Your task to perform on an android device: Look up the best rated bike seats on Target Image 0: 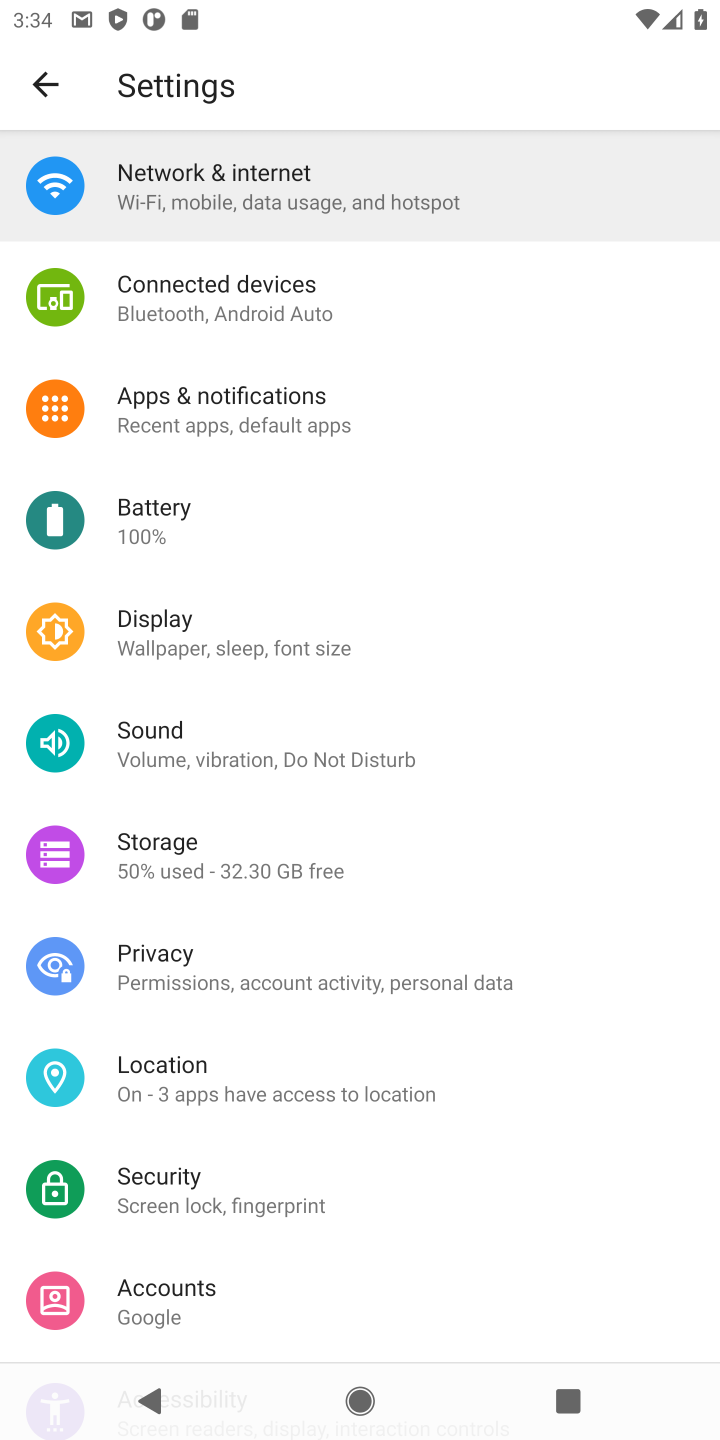
Step 0: press home button
Your task to perform on an android device: Look up the best rated bike seats on Target Image 1: 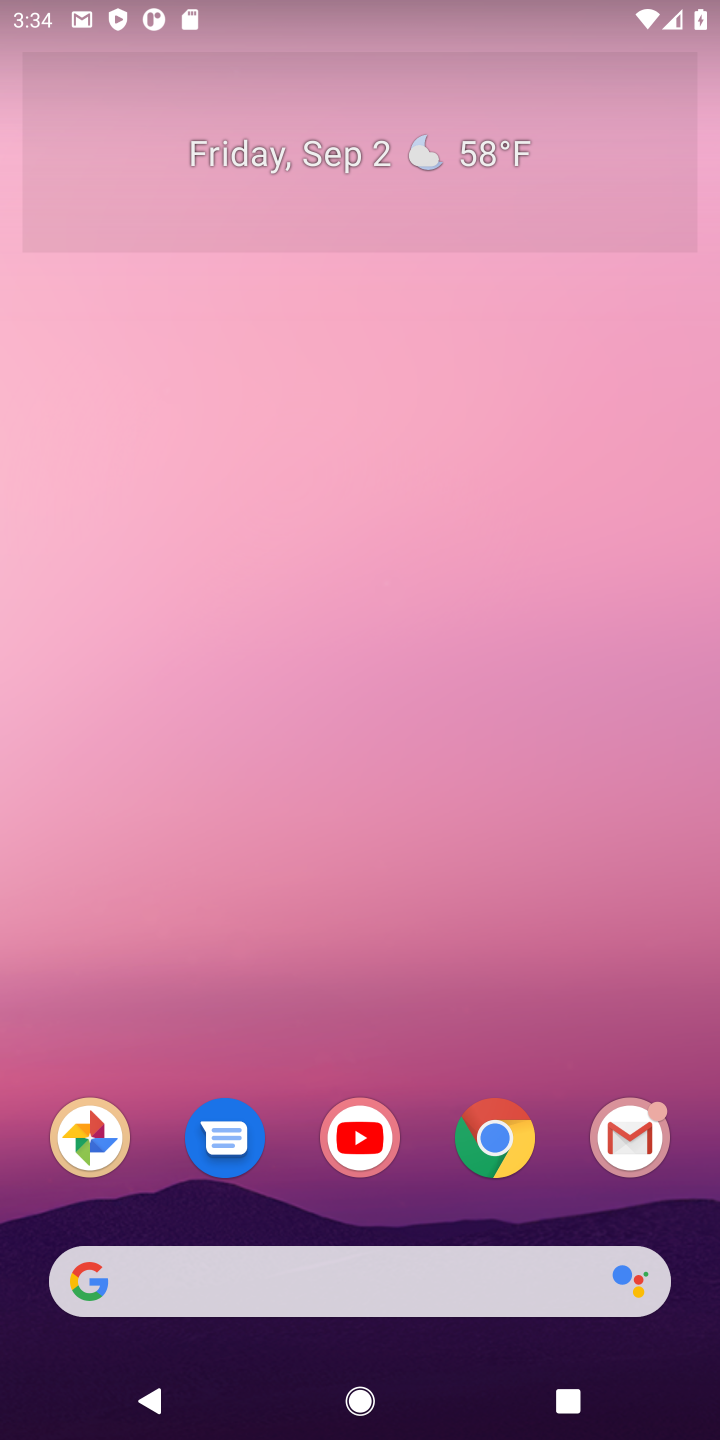
Step 1: click (477, 1140)
Your task to perform on an android device: Look up the best rated bike seats on Target Image 2: 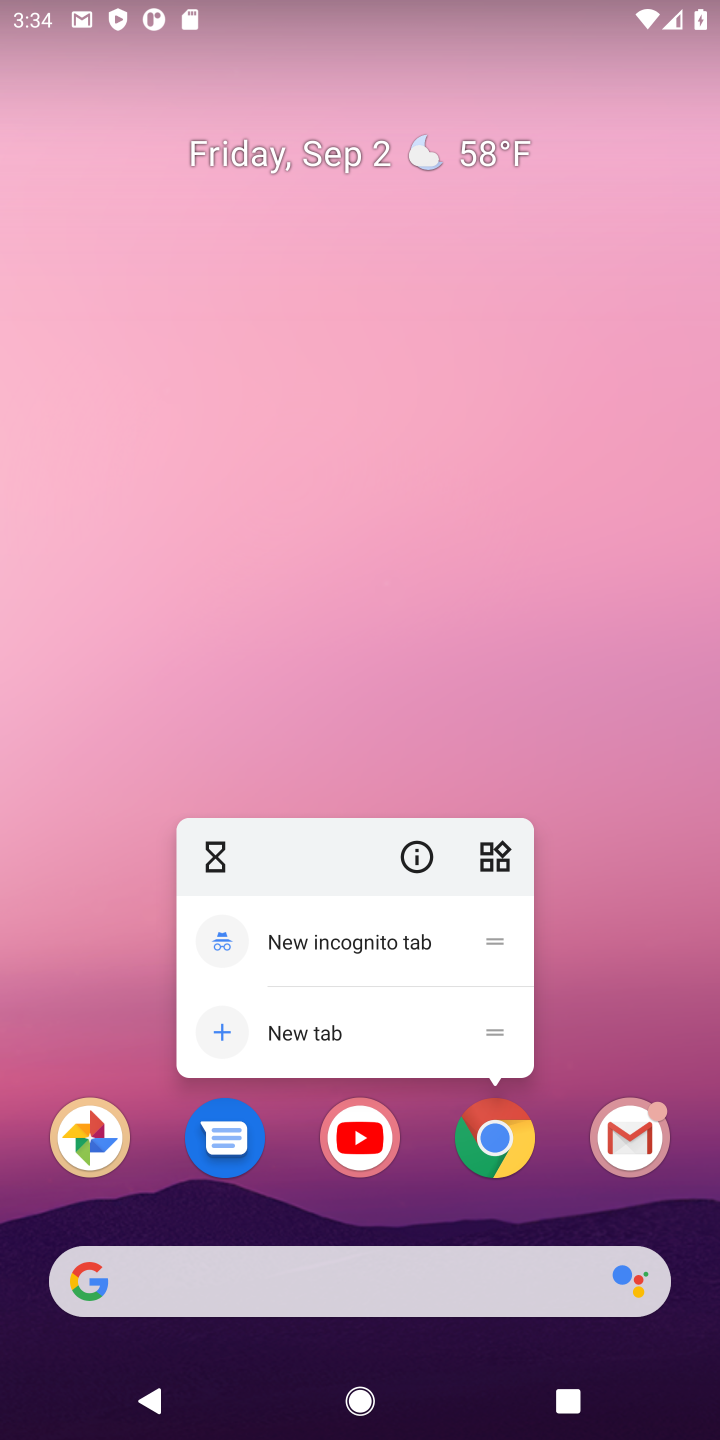
Step 2: click (502, 1148)
Your task to perform on an android device: Look up the best rated bike seats on Target Image 3: 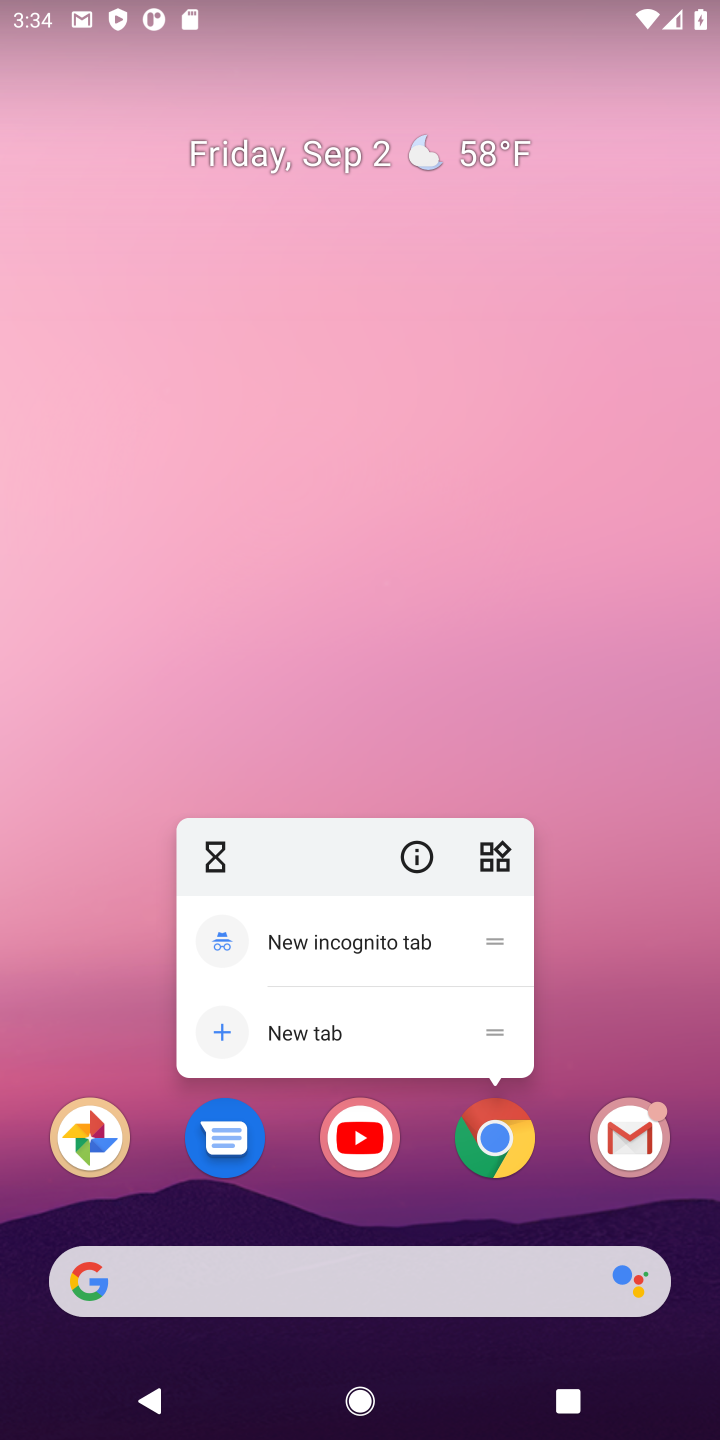
Step 3: click (502, 1148)
Your task to perform on an android device: Look up the best rated bike seats on Target Image 4: 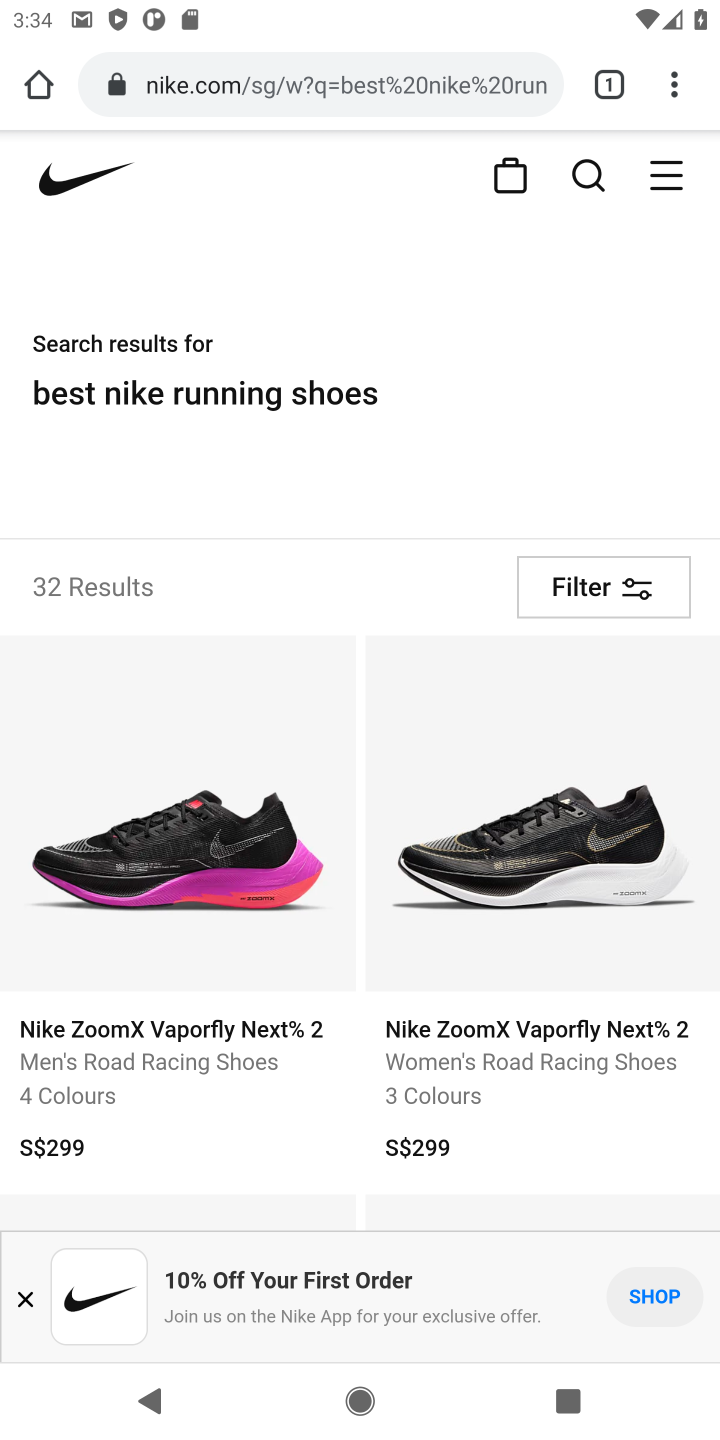
Step 4: click (428, 68)
Your task to perform on an android device: Look up the best rated bike seats on Target Image 5: 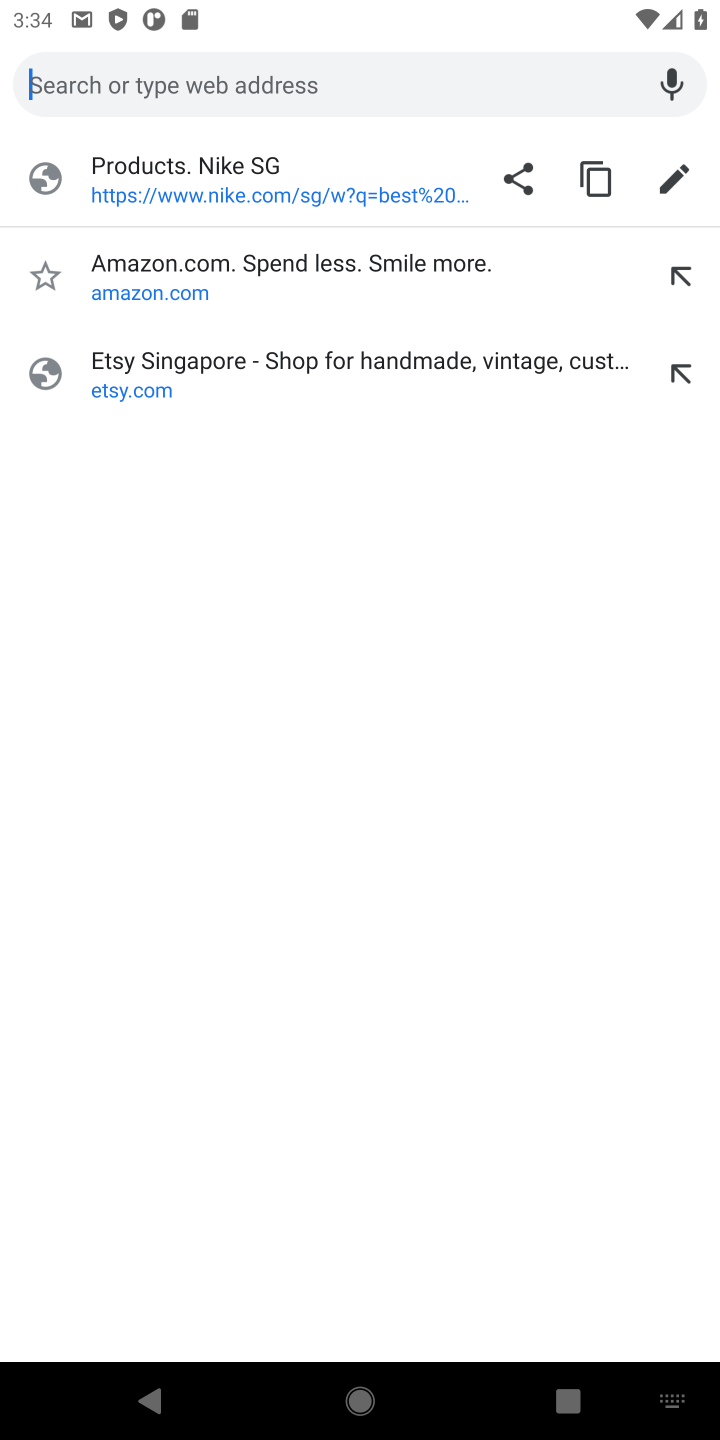
Step 5: type "target"
Your task to perform on an android device: Look up the best rated bike seats on Target Image 6: 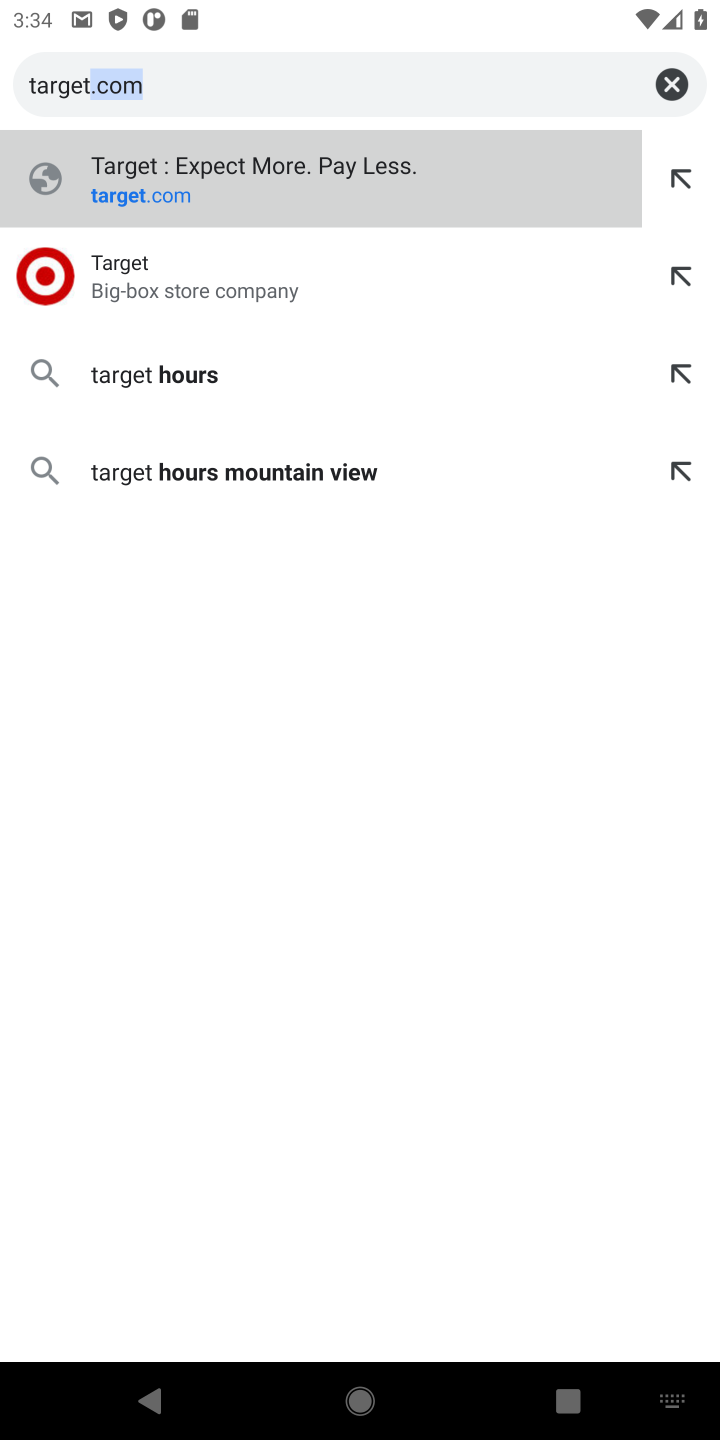
Step 6: click (220, 200)
Your task to perform on an android device: Look up the best rated bike seats on Target Image 7: 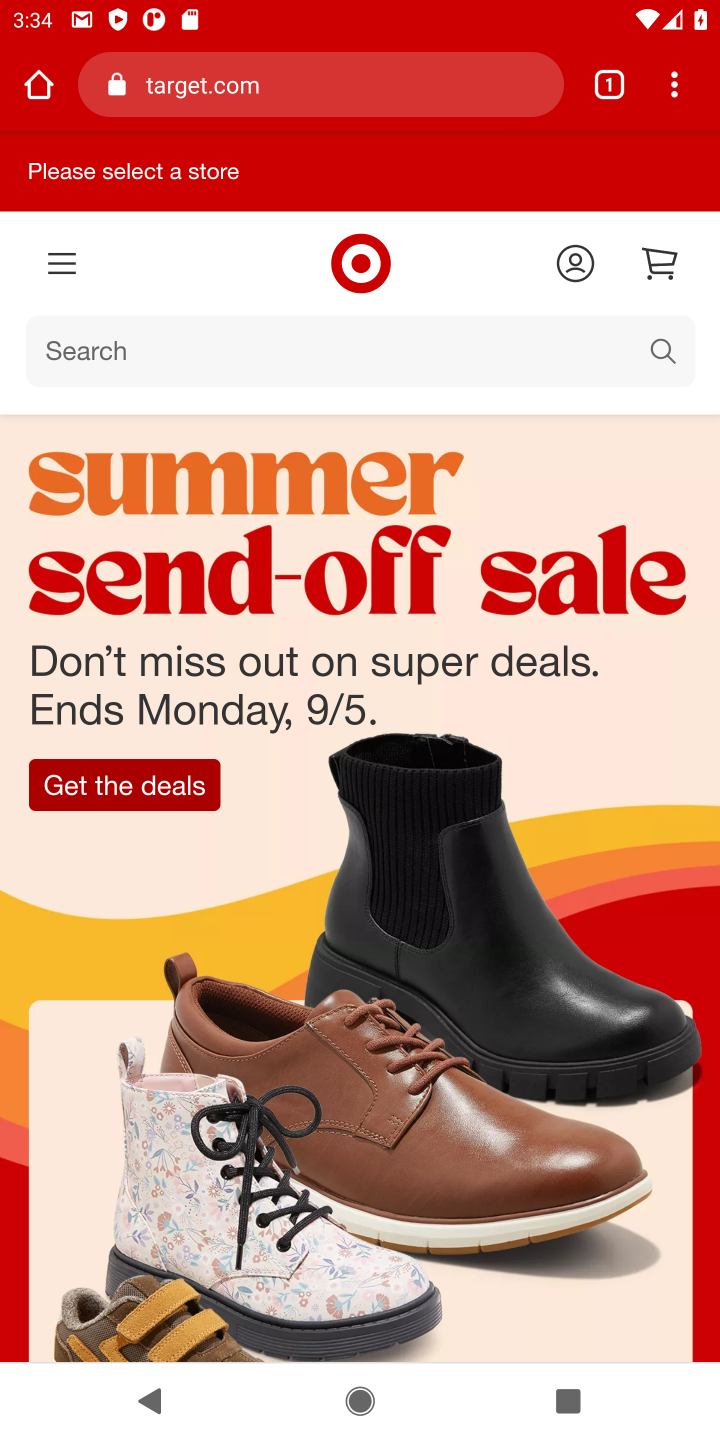
Step 7: click (466, 341)
Your task to perform on an android device: Look up the best rated bike seats on Target Image 8: 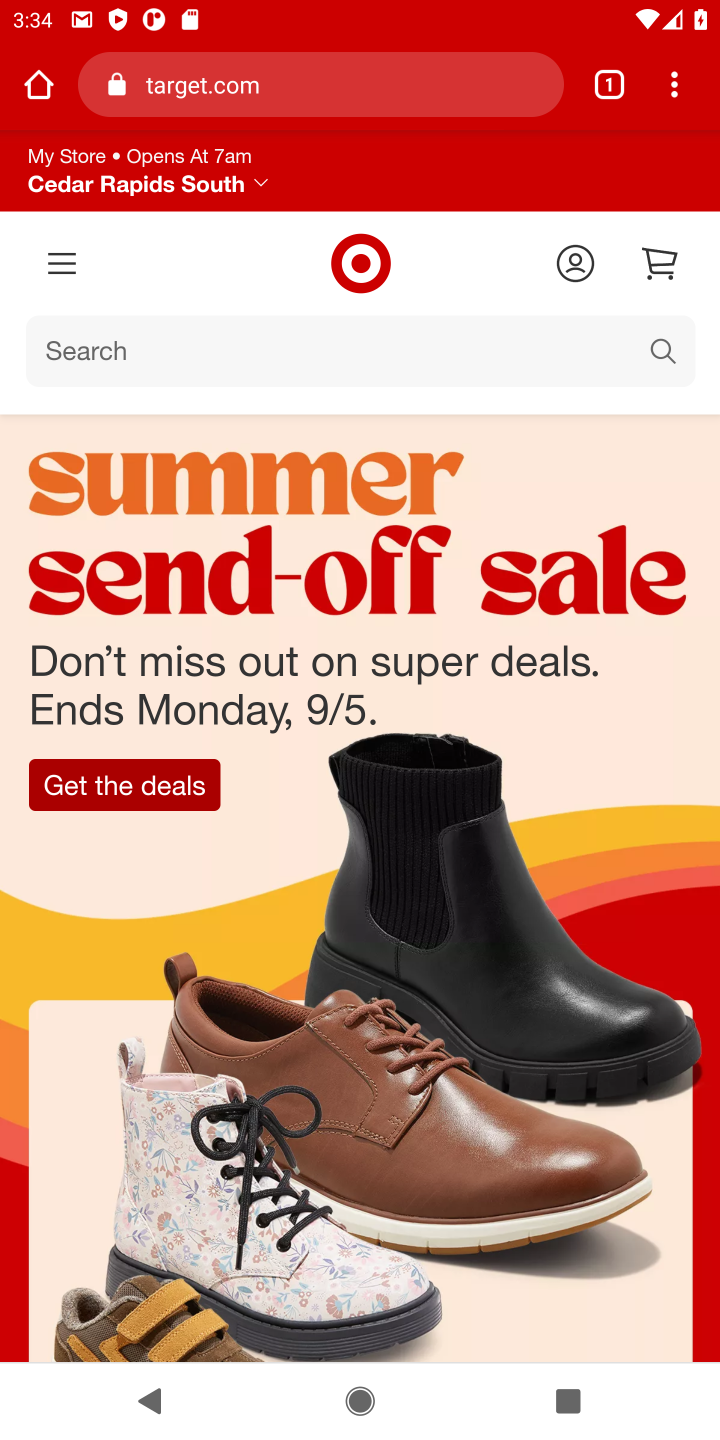
Step 8: click (616, 342)
Your task to perform on an android device: Look up the best rated bike seats on Target Image 9: 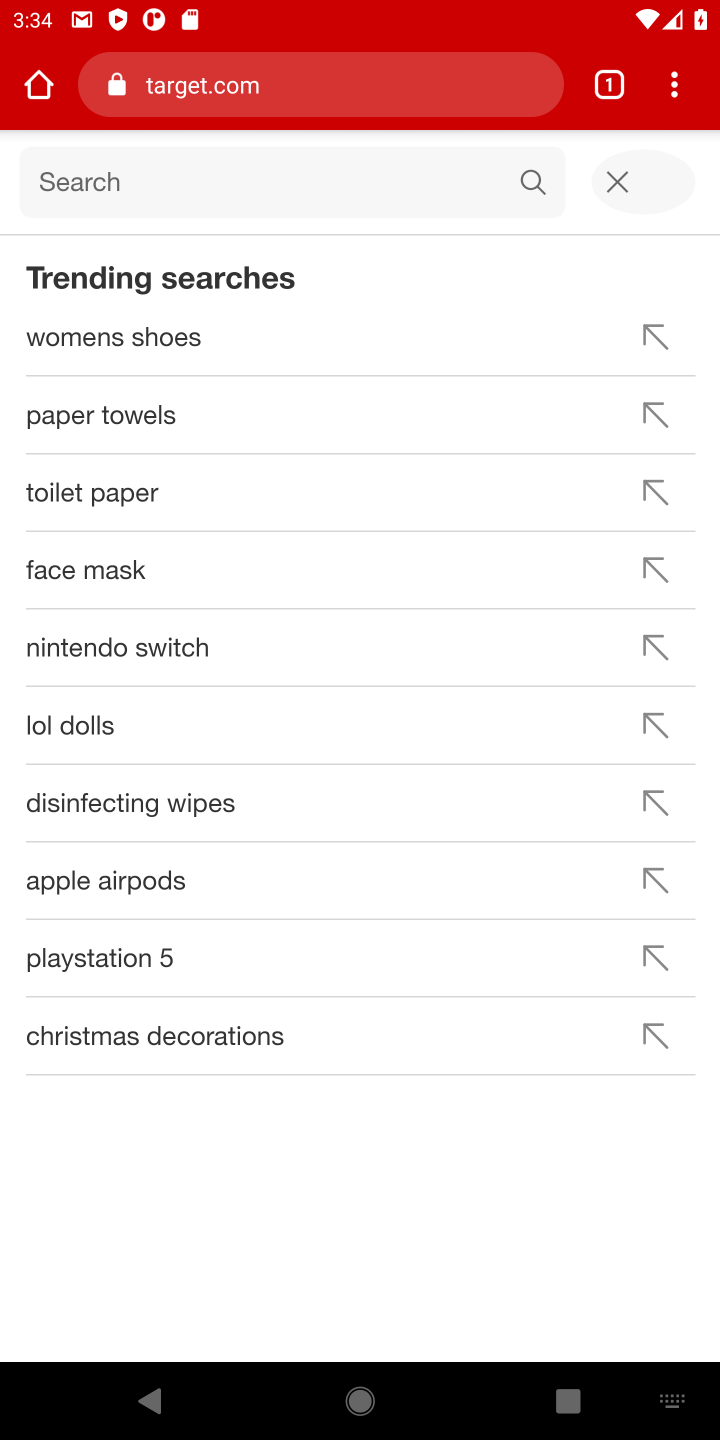
Step 9: type "bike seats"
Your task to perform on an android device: Look up the best rated bike seats on Target Image 10: 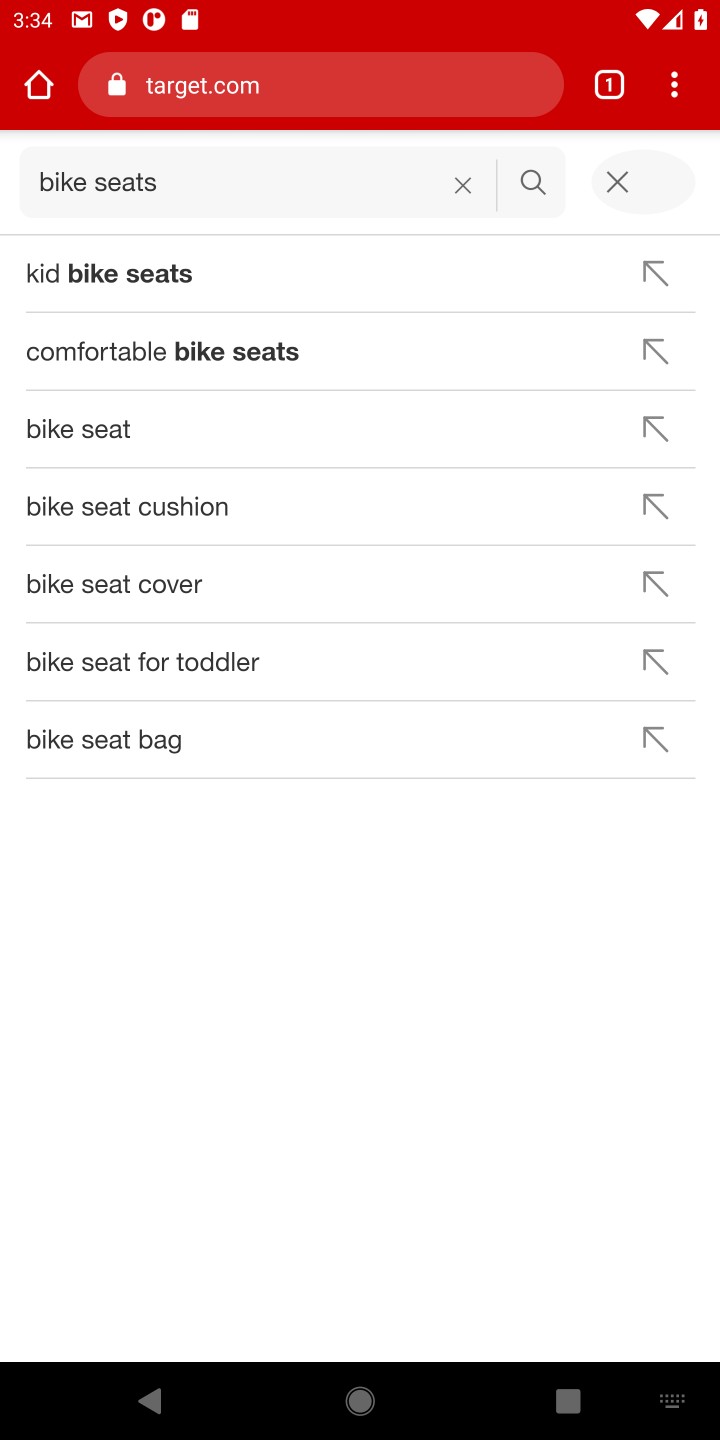
Step 10: click (259, 429)
Your task to perform on an android device: Look up the best rated bike seats on Target Image 11: 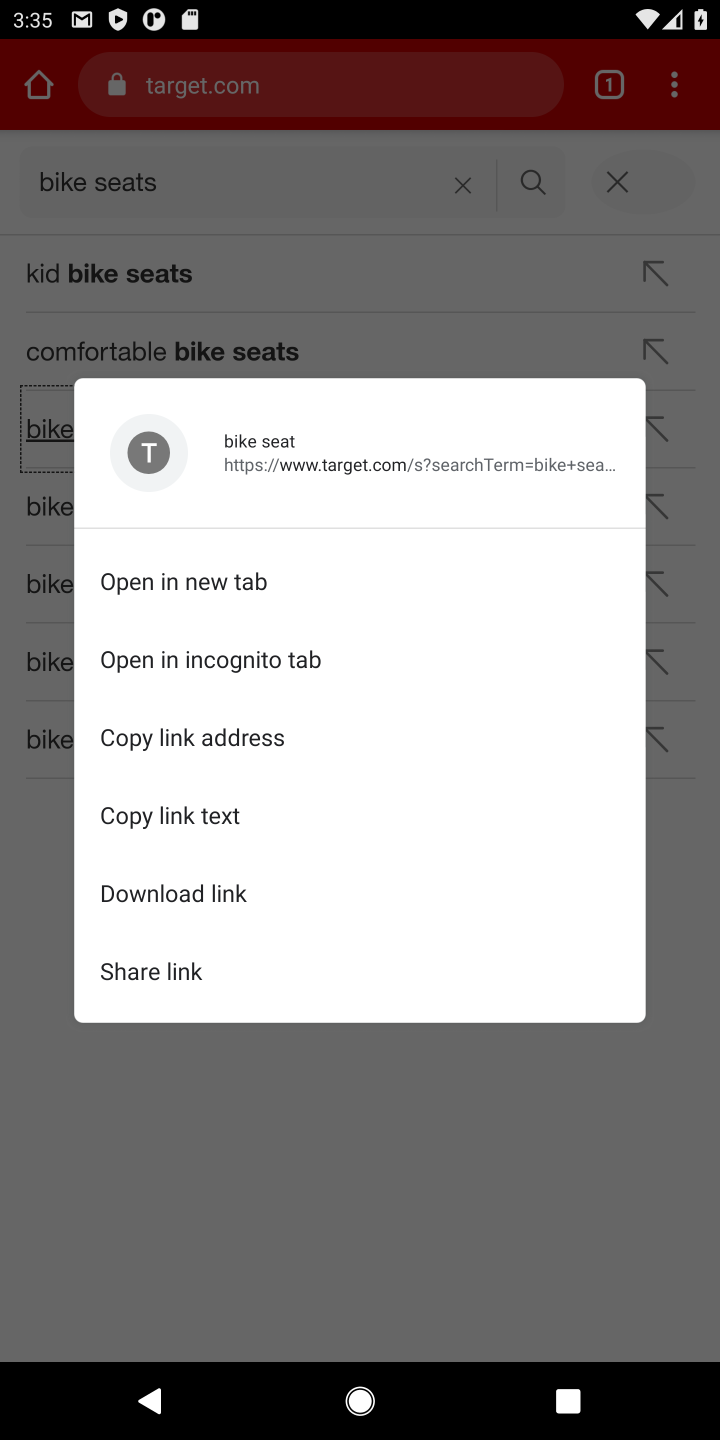
Step 11: click (603, 1199)
Your task to perform on an android device: Look up the best rated bike seats on Target Image 12: 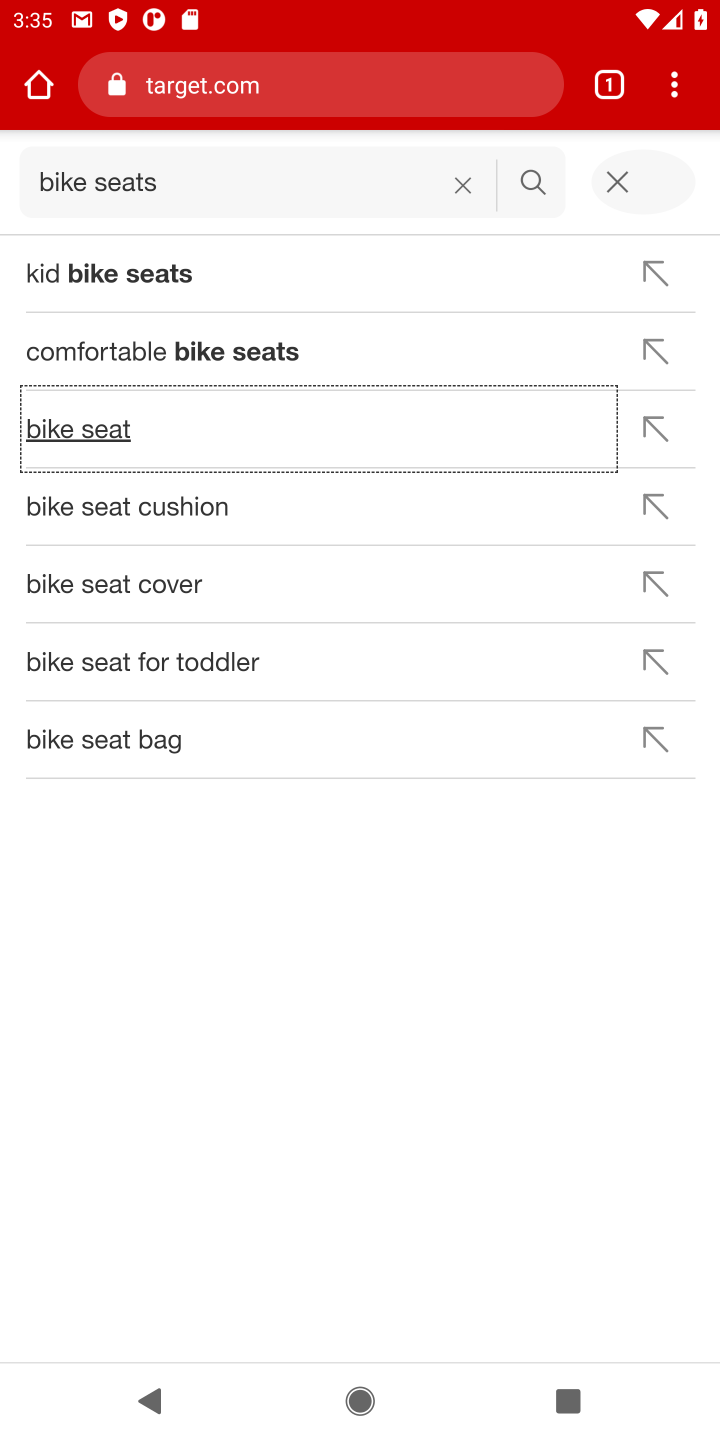
Step 12: click (549, 177)
Your task to perform on an android device: Look up the best rated bike seats on Target Image 13: 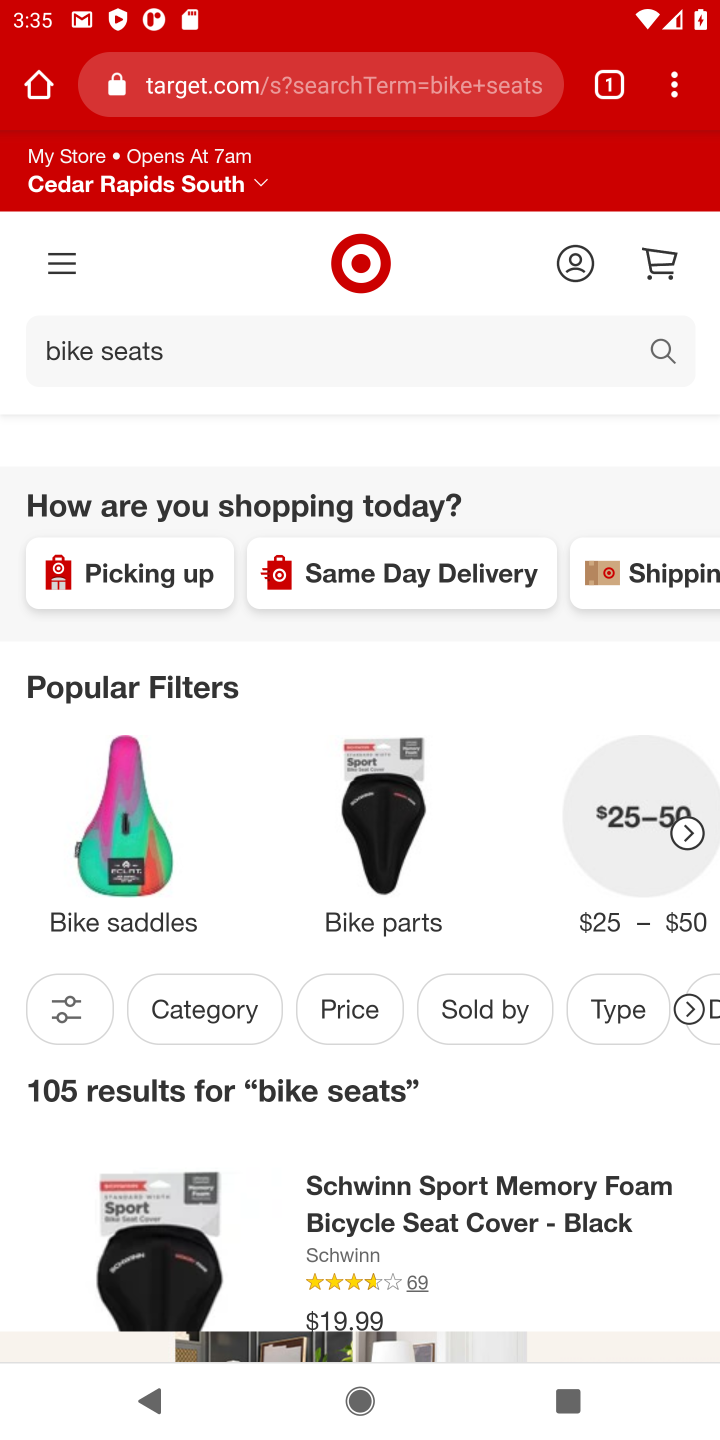
Step 13: drag from (488, 998) to (108, 1014)
Your task to perform on an android device: Look up the best rated bike seats on Target Image 14: 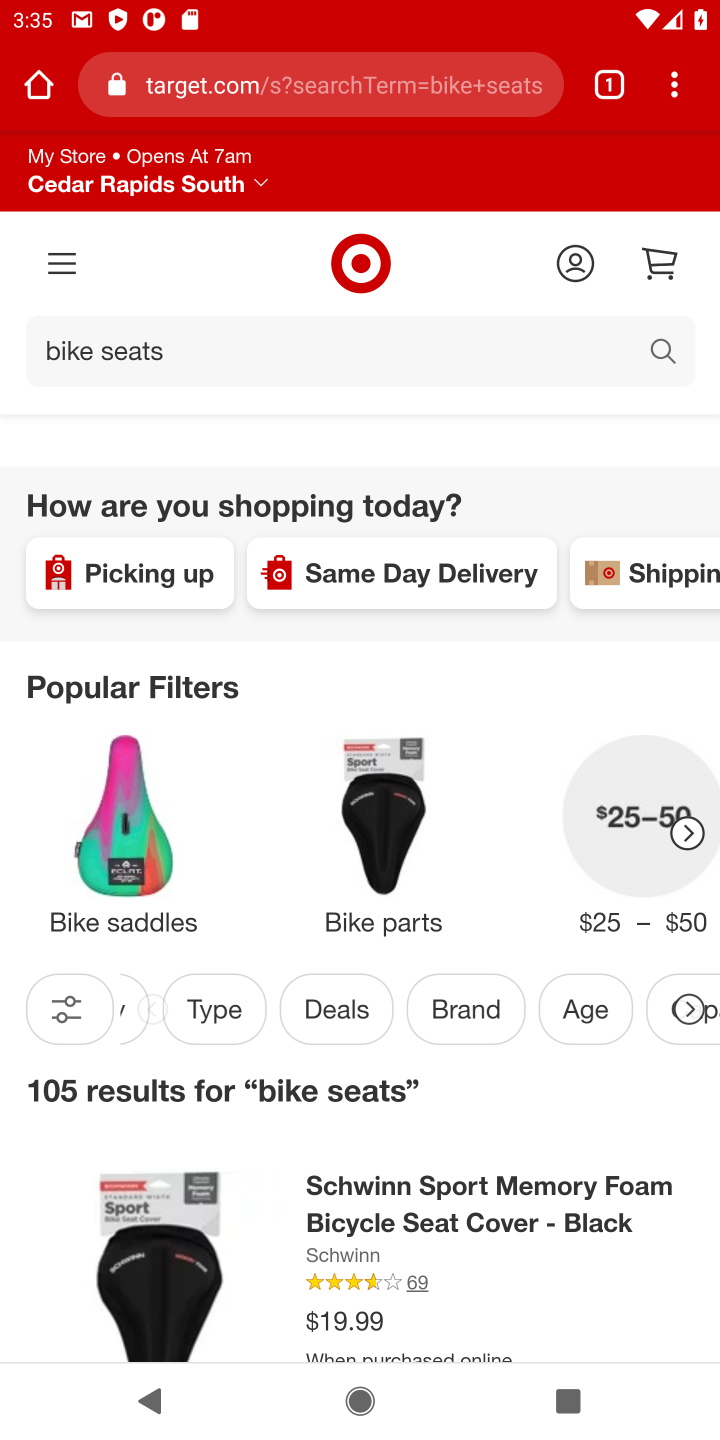
Step 14: drag from (481, 993) to (79, 985)
Your task to perform on an android device: Look up the best rated bike seats on Target Image 15: 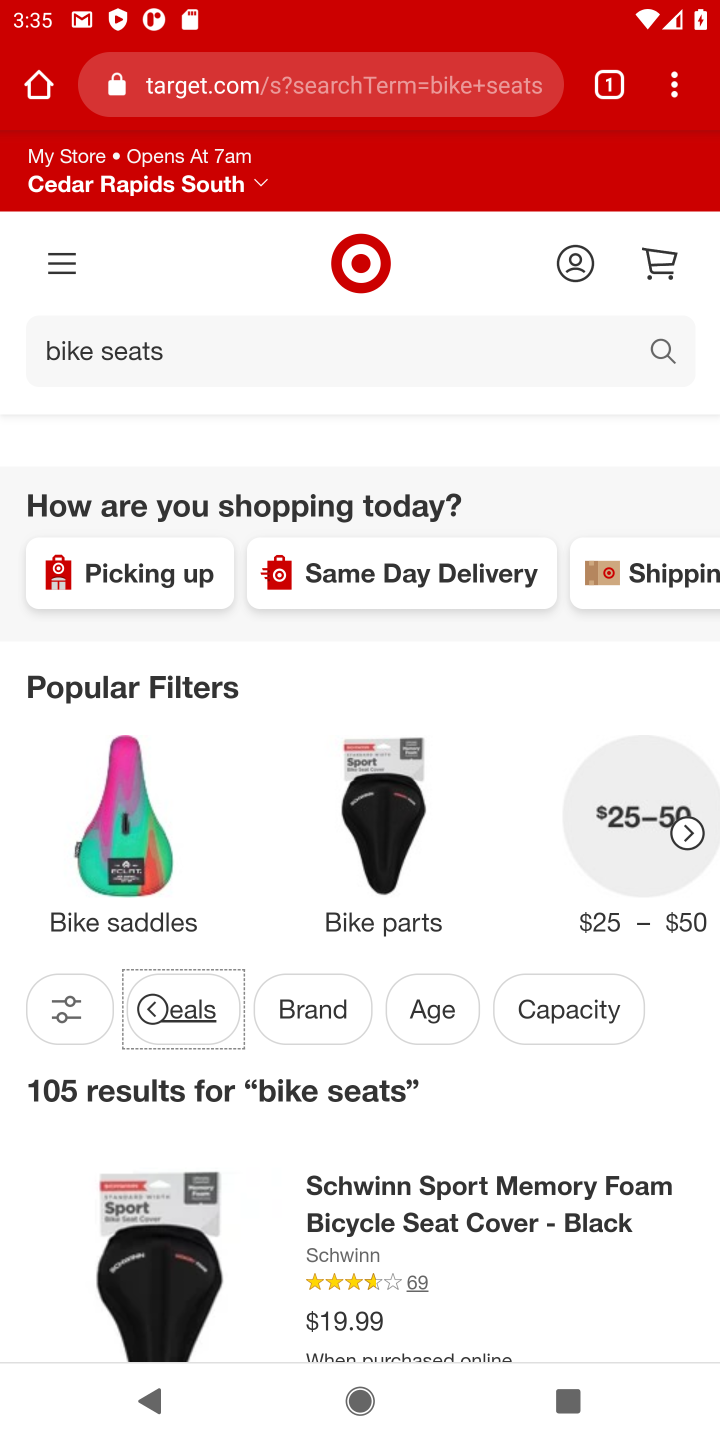
Step 15: click (60, 1008)
Your task to perform on an android device: Look up the best rated bike seats on Target Image 16: 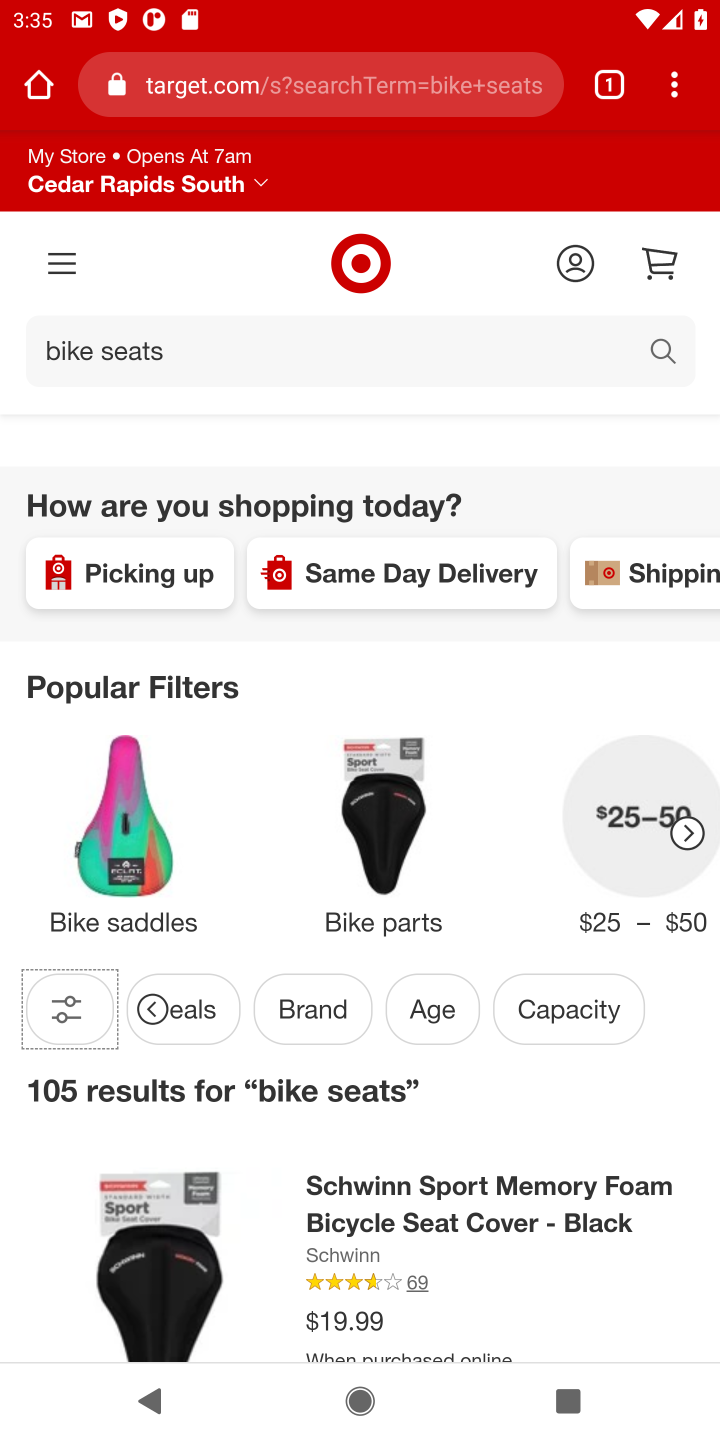
Step 16: click (55, 1010)
Your task to perform on an android device: Look up the best rated bike seats on Target Image 17: 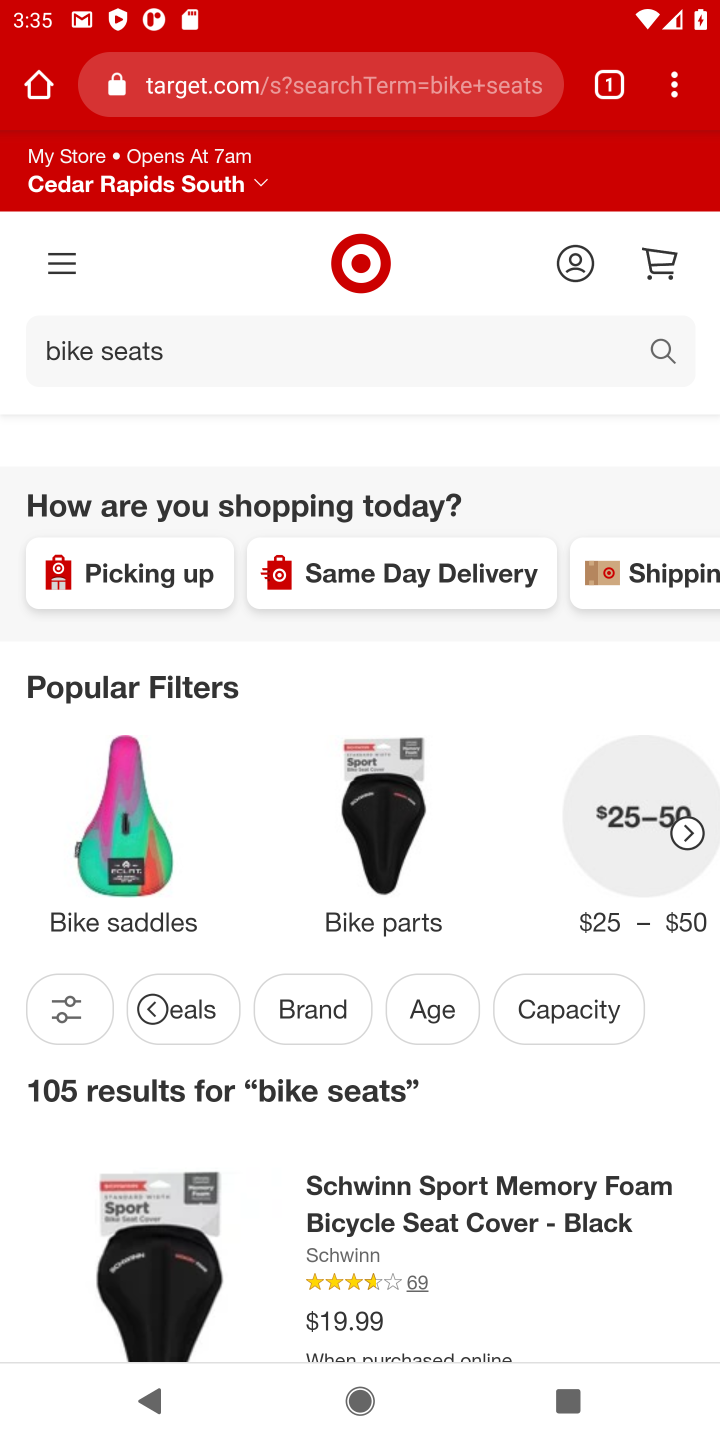
Step 17: click (55, 1010)
Your task to perform on an android device: Look up the best rated bike seats on Target Image 18: 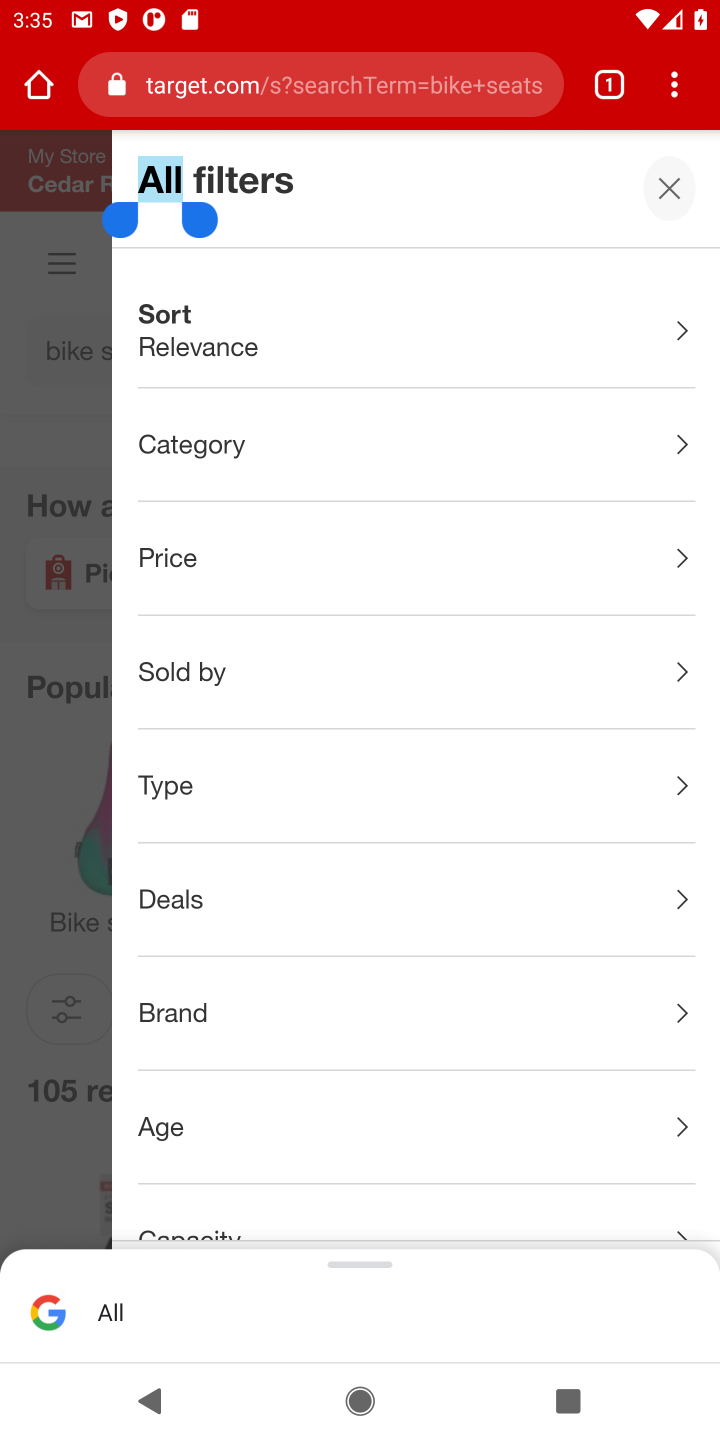
Step 18: drag from (468, 787) to (375, 337)
Your task to perform on an android device: Look up the best rated bike seats on Target Image 19: 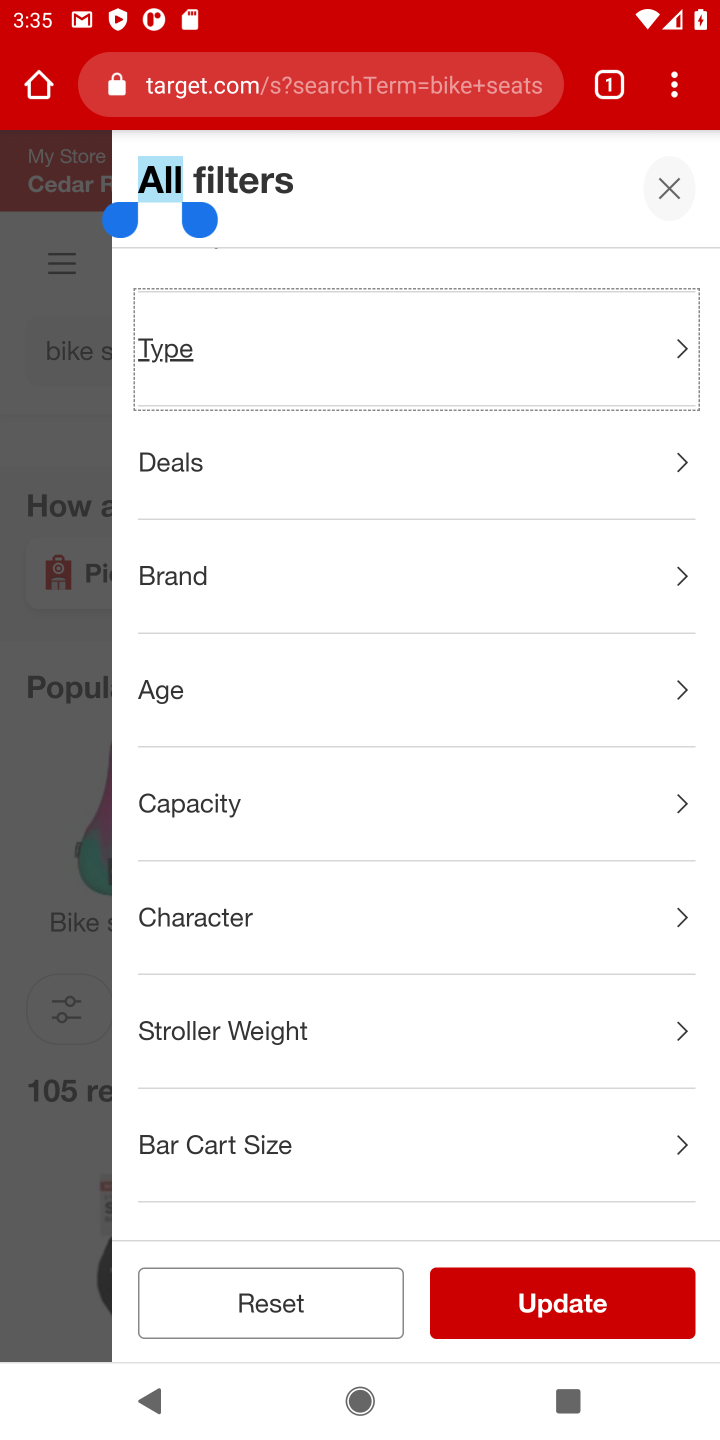
Step 19: drag from (433, 1037) to (333, 395)
Your task to perform on an android device: Look up the best rated bike seats on Target Image 20: 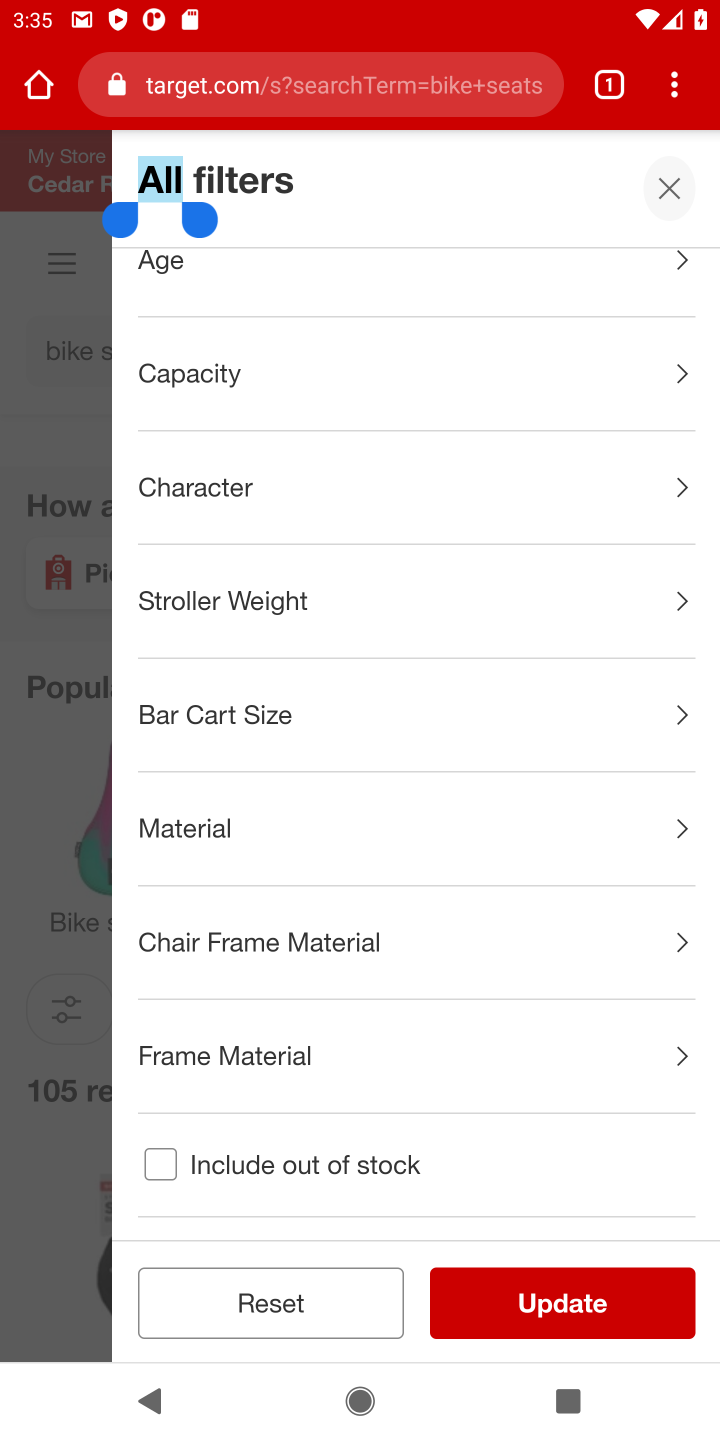
Step 20: drag from (442, 1054) to (405, 1154)
Your task to perform on an android device: Look up the best rated bike seats on Target Image 21: 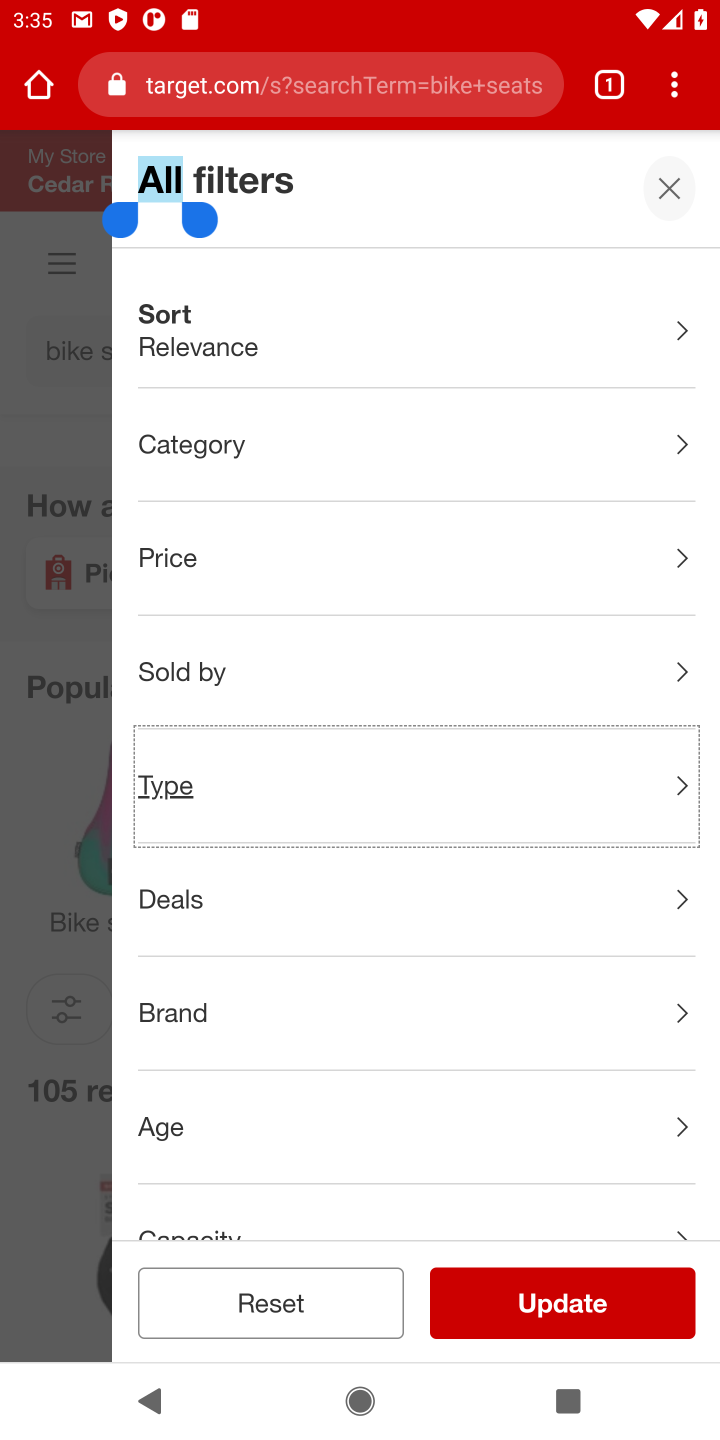
Step 21: click (677, 336)
Your task to perform on an android device: Look up the best rated bike seats on Target Image 22: 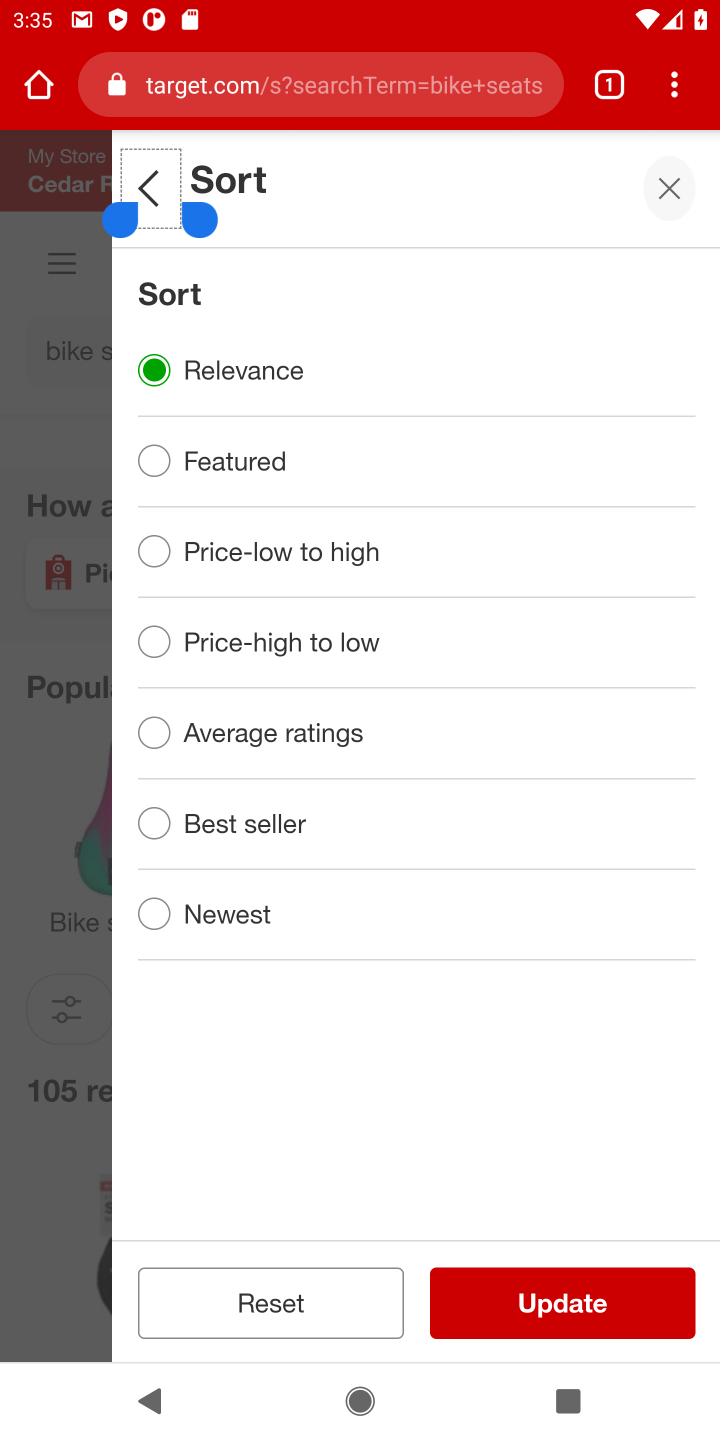
Step 22: click (248, 823)
Your task to perform on an android device: Look up the best rated bike seats on Target Image 23: 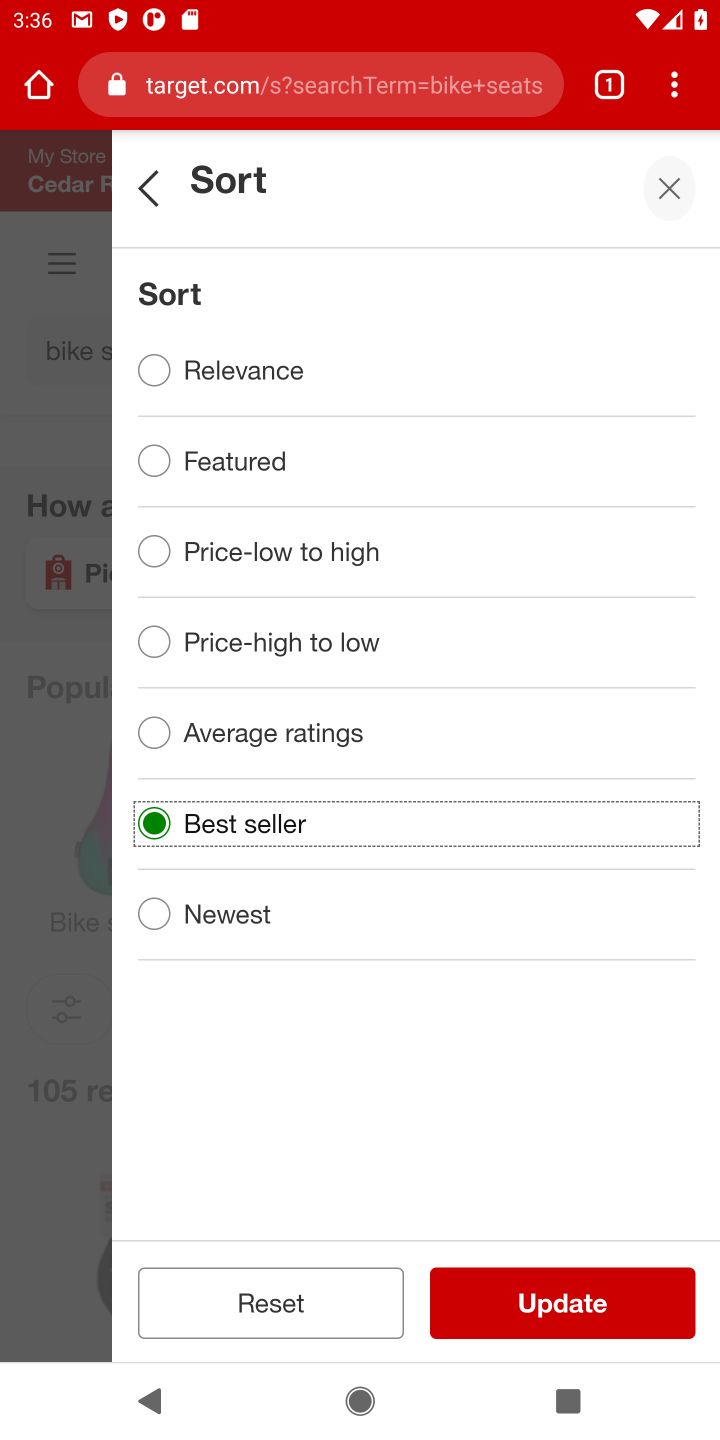
Step 23: click (547, 1307)
Your task to perform on an android device: Look up the best rated bike seats on Target Image 24: 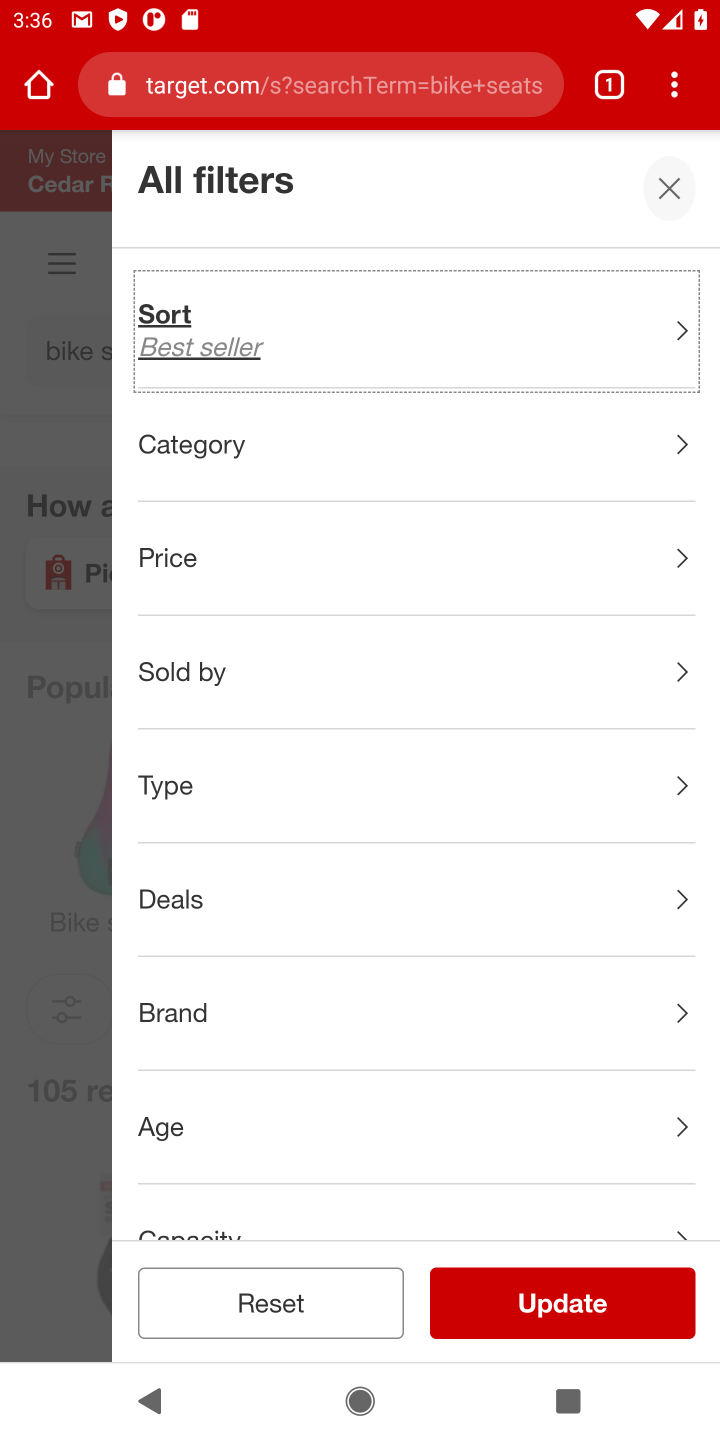
Step 24: click (547, 1307)
Your task to perform on an android device: Look up the best rated bike seats on Target Image 25: 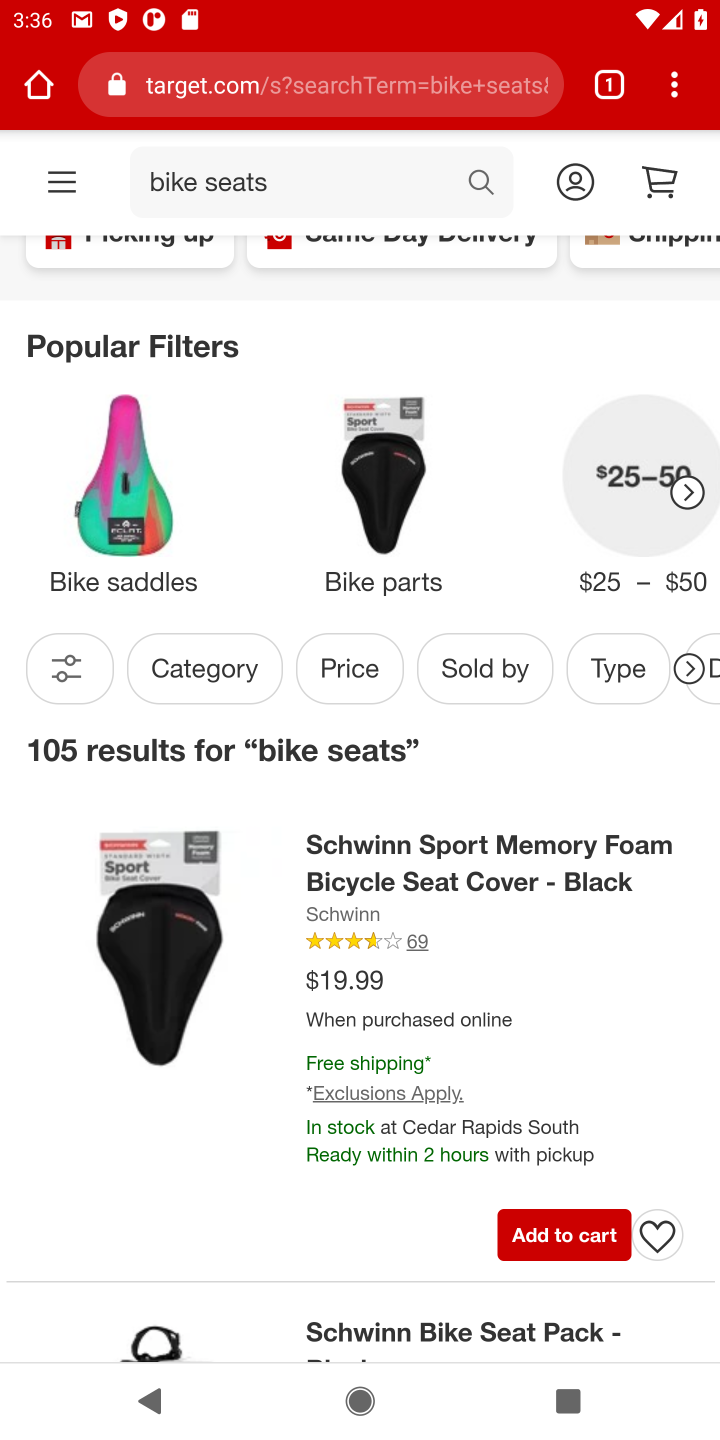
Step 25: task complete